Your task to perform on an android device: clear history in the chrome app Image 0: 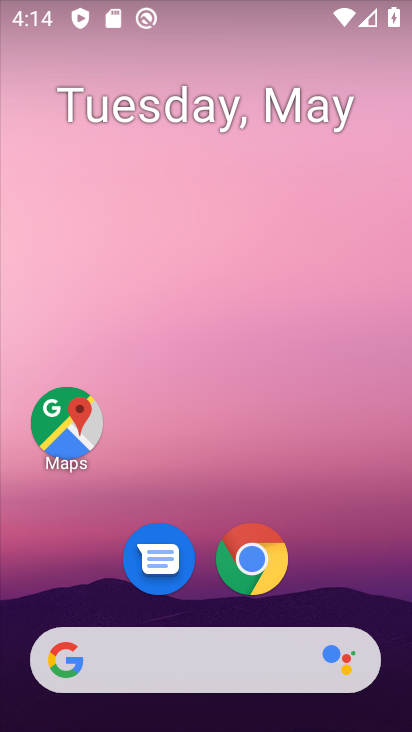
Step 0: click (260, 562)
Your task to perform on an android device: clear history in the chrome app Image 1: 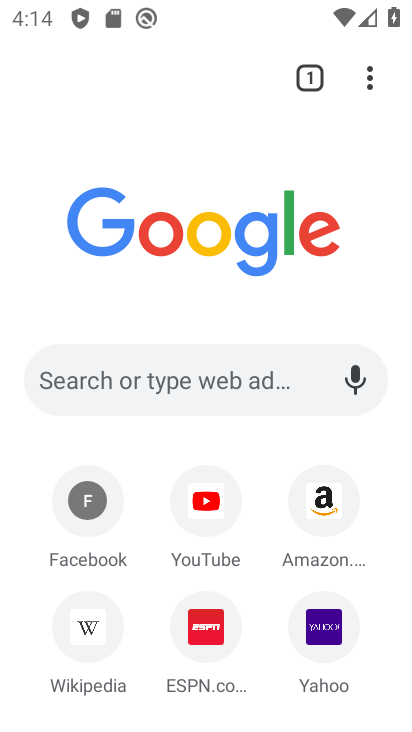
Step 1: click (367, 80)
Your task to perform on an android device: clear history in the chrome app Image 2: 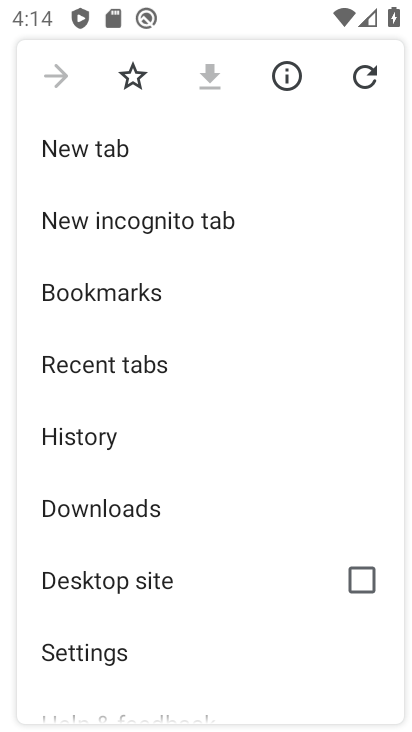
Step 2: click (97, 423)
Your task to perform on an android device: clear history in the chrome app Image 3: 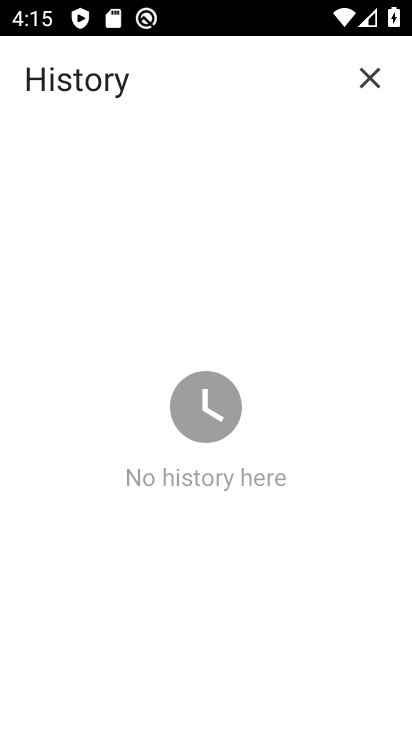
Step 3: task complete